Your task to perform on an android device: Go to accessibility settings Image 0: 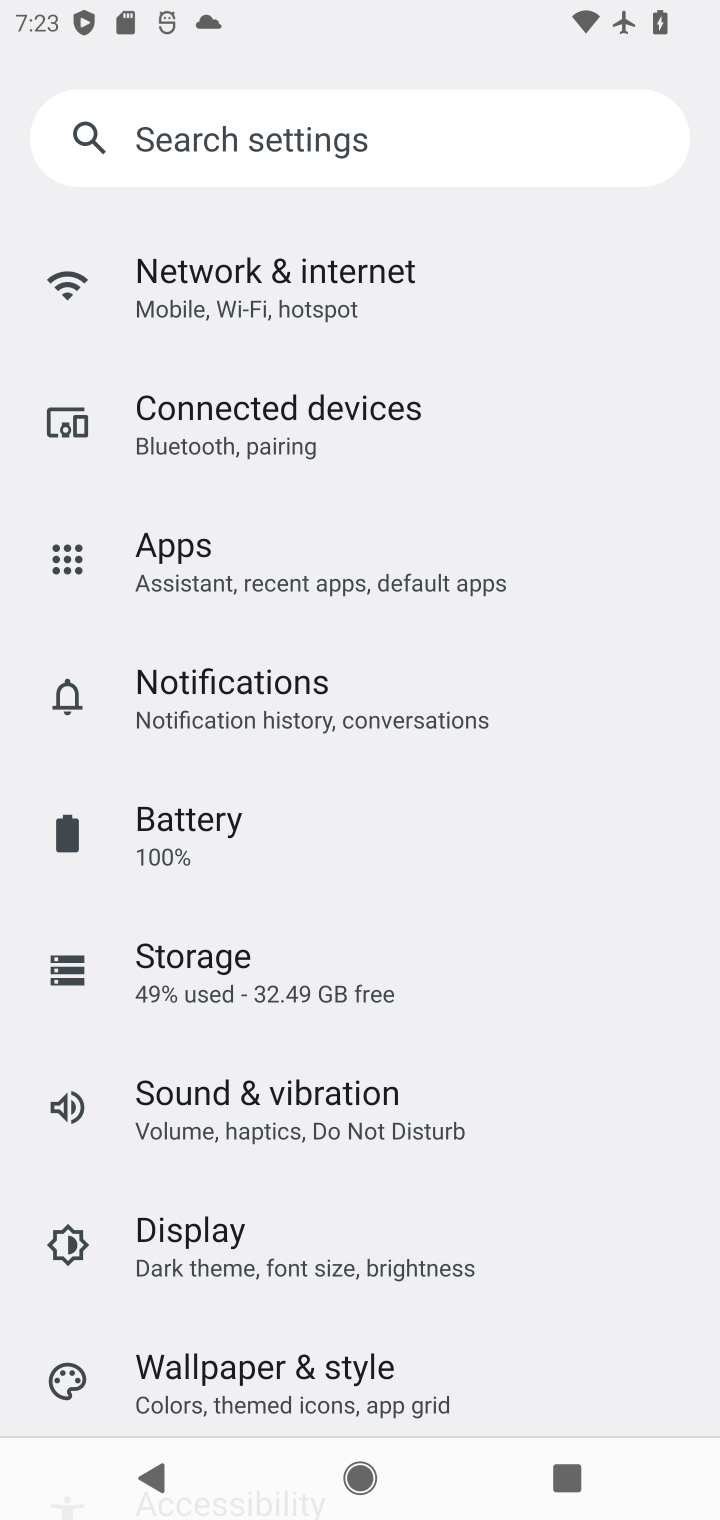
Step 0: drag from (243, 1069) to (374, 61)
Your task to perform on an android device: Go to accessibility settings Image 1: 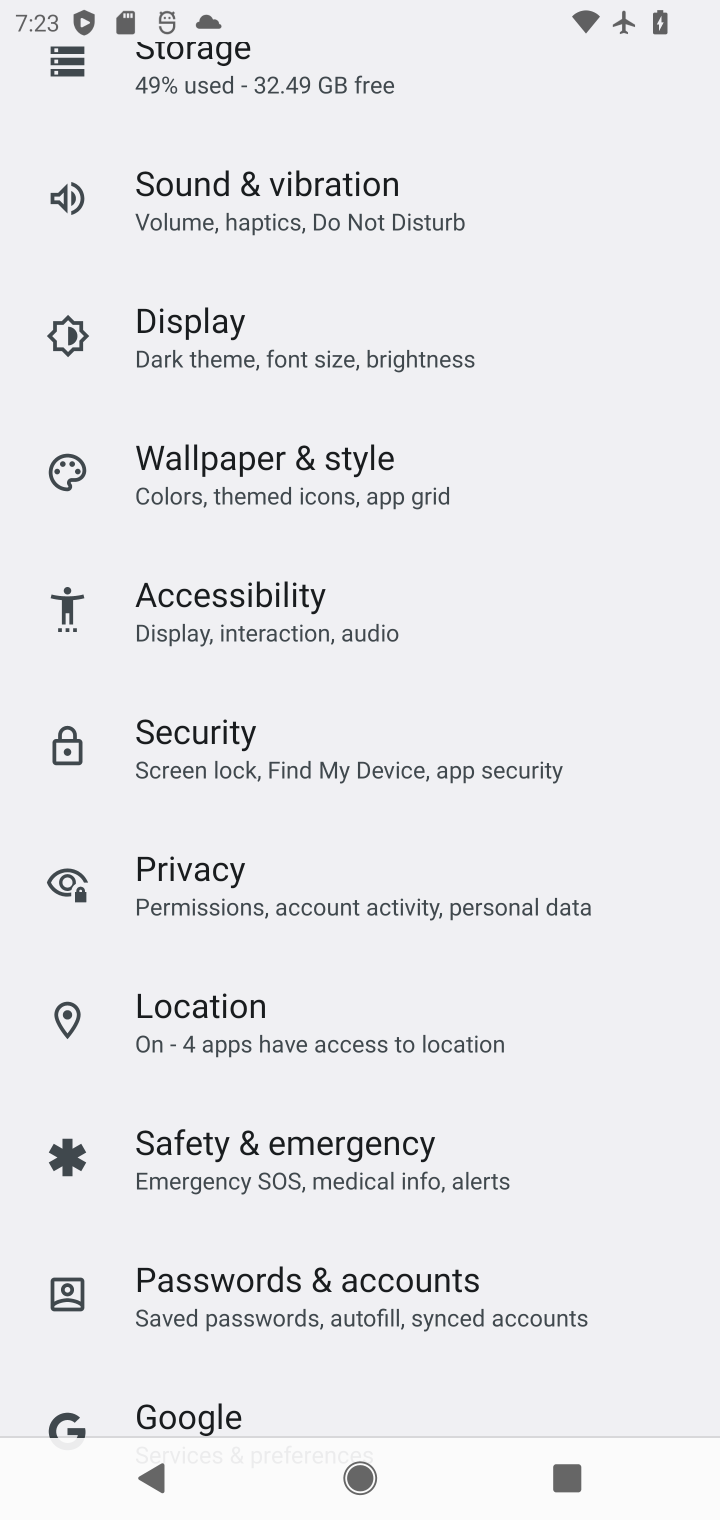
Step 1: click (236, 621)
Your task to perform on an android device: Go to accessibility settings Image 2: 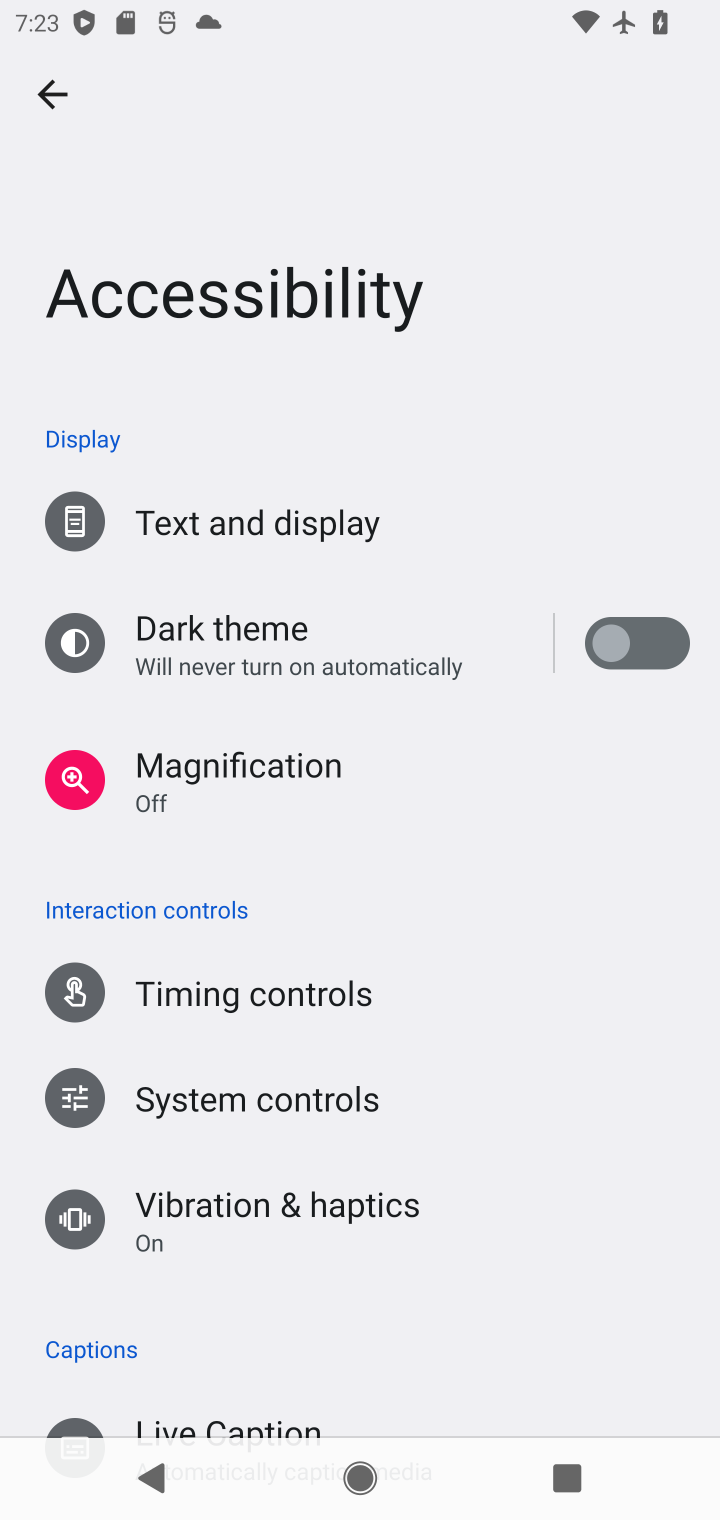
Step 2: task complete